Your task to perform on an android device: Open the calendar and show me this week's events? Image 0: 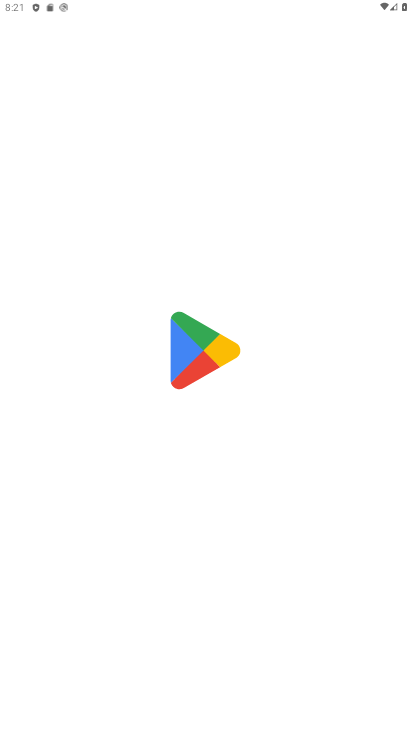
Step 0: press back button
Your task to perform on an android device: Open the calendar and show me this week's events? Image 1: 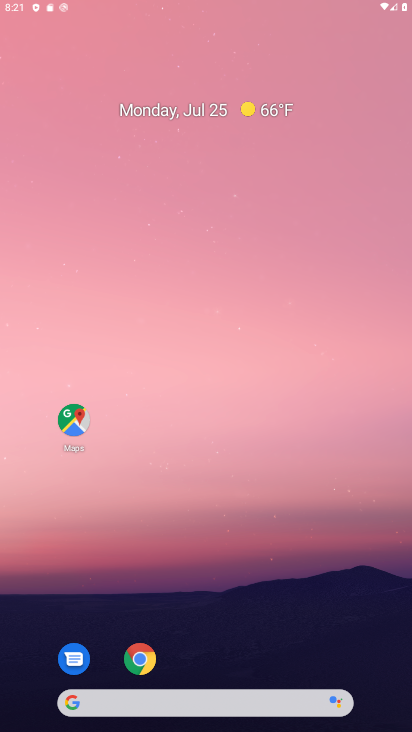
Step 1: press home button
Your task to perform on an android device: Open the calendar and show me this week's events? Image 2: 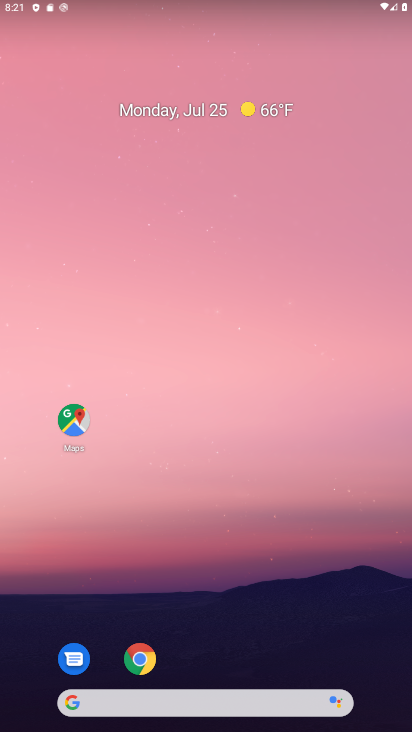
Step 2: press home button
Your task to perform on an android device: Open the calendar and show me this week's events? Image 3: 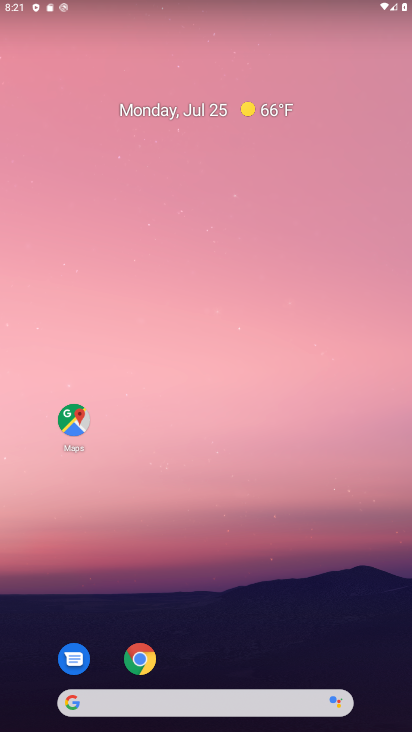
Step 3: drag from (188, 474) to (188, 143)
Your task to perform on an android device: Open the calendar and show me this week's events? Image 4: 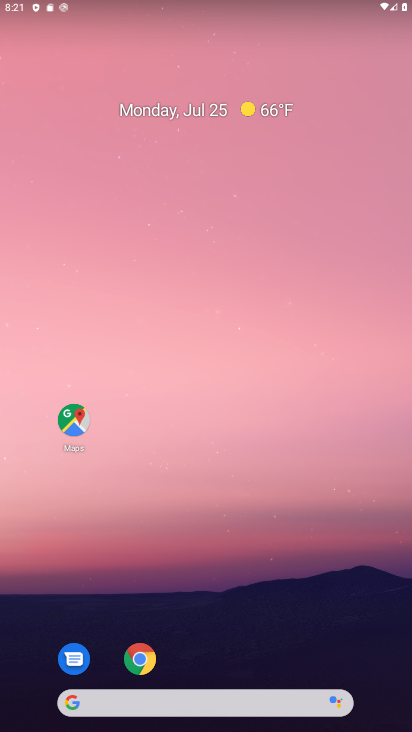
Step 4: drag from (314, 641) to (231, 83)
Your task to perform on an android device: Open the calendar and show me this week's events? Image 5: 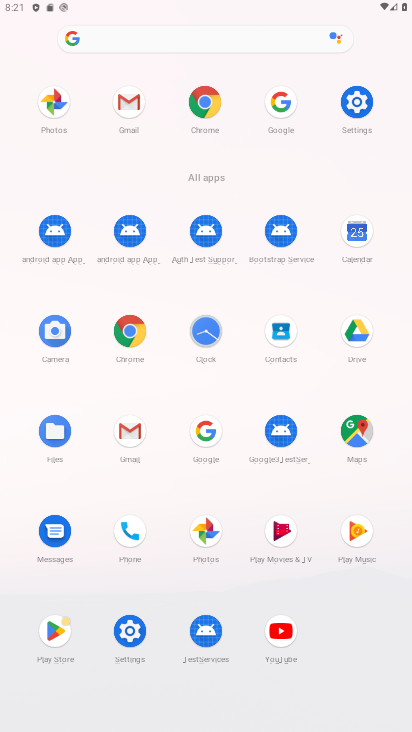
Step 5: click (356, 238)
Your task to perform on an android device: Open the calendar and show me this week's events? Image 6: 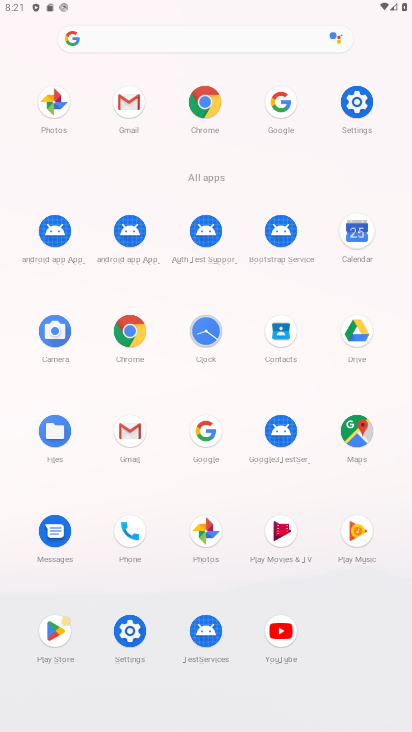
Step 6: click (356, 235)
Your task to perform on an android device: Open the calendar and show me this week's events? Image 7: 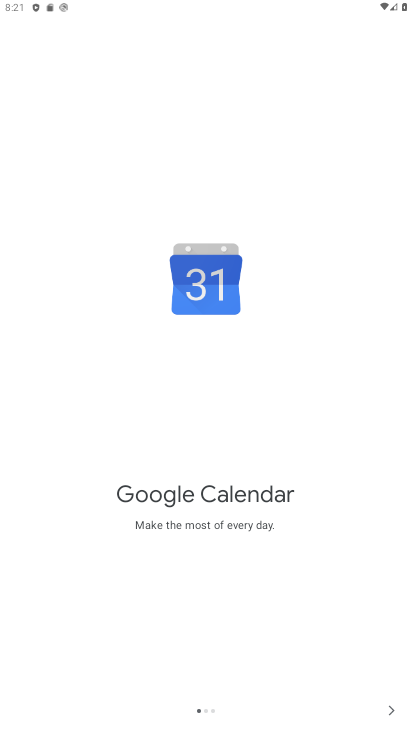
Step 7: click (385, 703)
Your task to perform on an android device: Open the calendar and show me this week's events? Image 8: 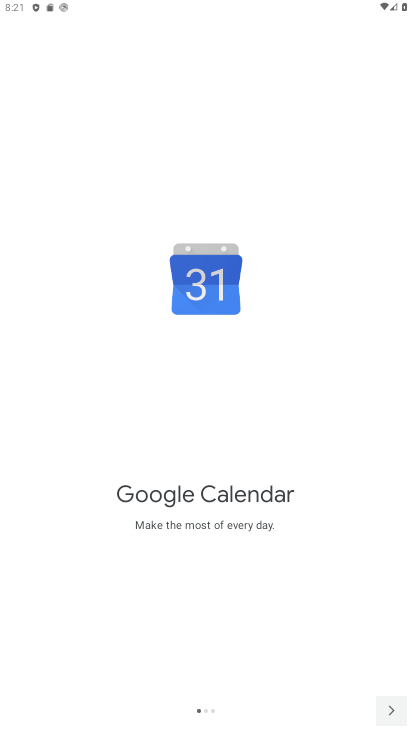
Step 8: click (385, 703)
Your task to perform on an android device: Open the calendar and show me this week's events? Image 9: 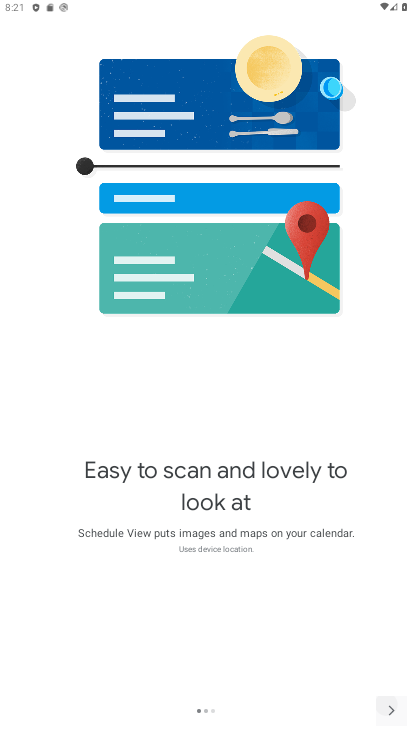
Step 9: click (385, 703)
Your task to perform on an android device: Open the calendar and show me this week's events? Image 10: 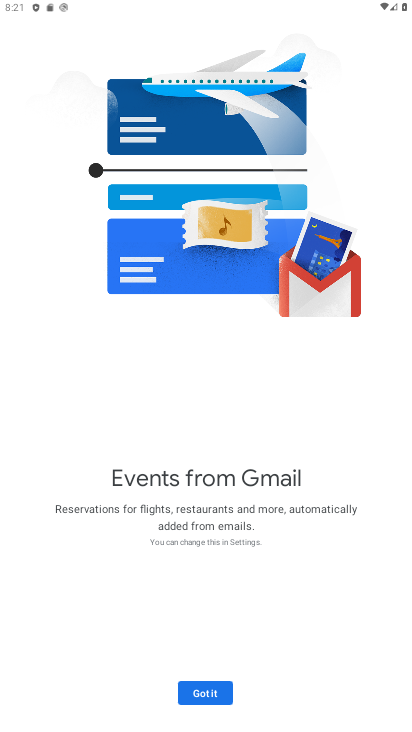
Step 10: click (385, 703)
Your task to perform on an android device: Open the calendar and show me this week's events? Image 11: 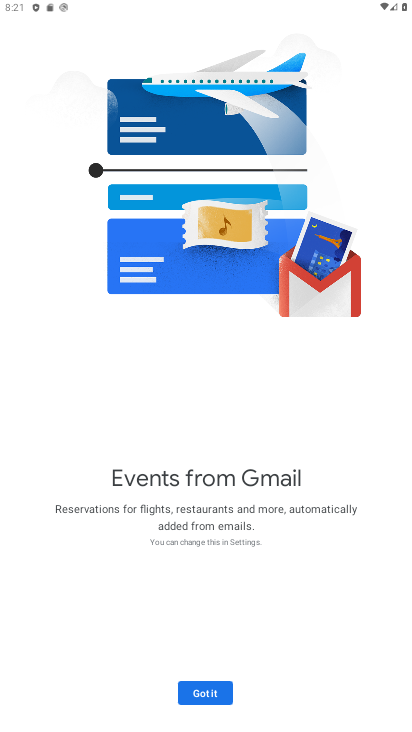
Step 11: click (384, 702)
Your task to perform on an android device: Open the calendar and show me this week's events? Image 12: 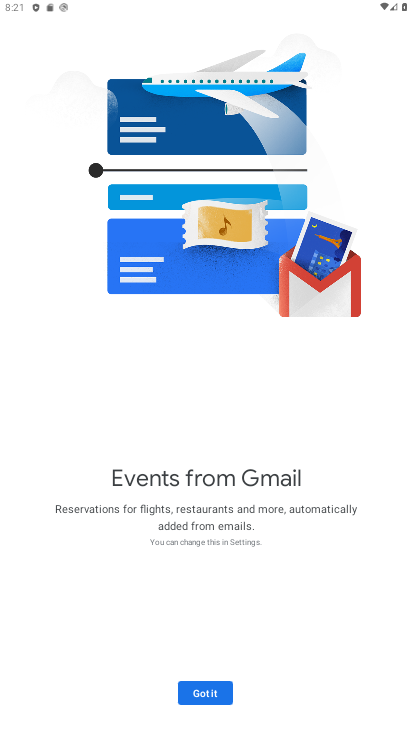
Step 12: click (383, 702)
Your task to perform on an android device: Open the calendar and show me this week's events? Image 13: 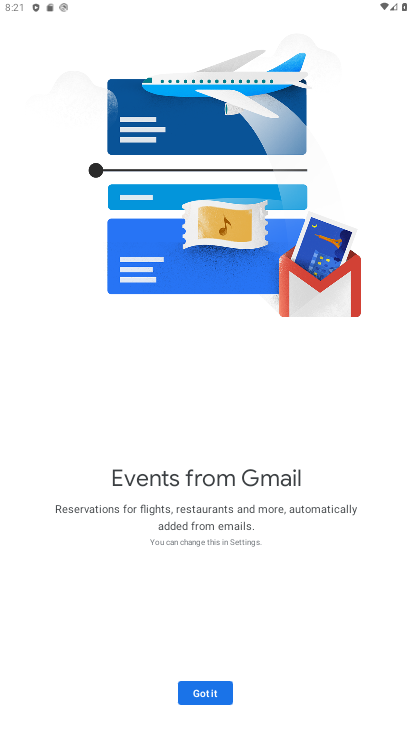
Step 13: click (193, 694)
Your task to perform on an android device: Open the calendar and show me this week's events? Image 14: 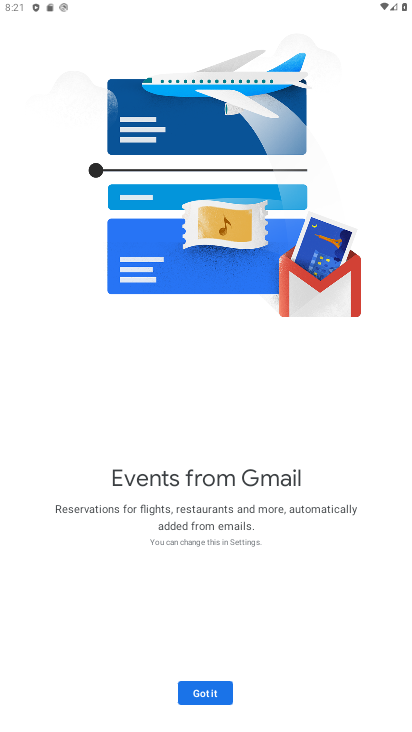
Step 14: click (198, 689)
Your task to perform on an android device: Open the calendar and show me this week's events? Image 15: 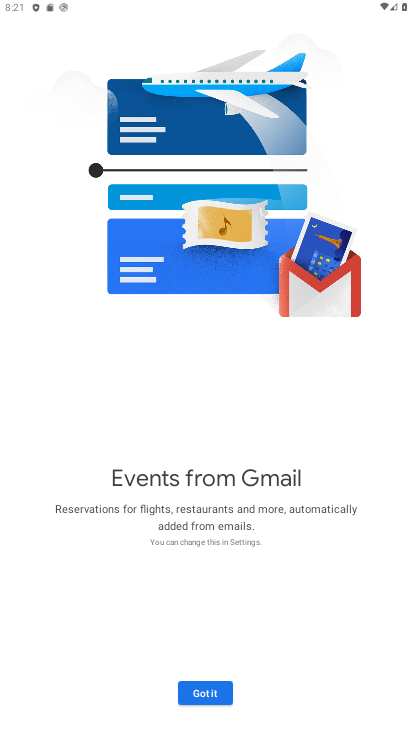
Step 15: click (199, 689)
Your task to perform on an android device: Open the calendar and show me this week's events? Image 16: 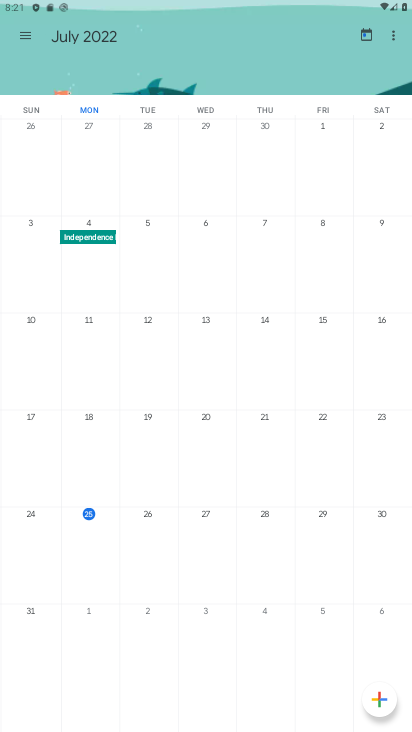
Step 16: click (334, 510)
Your task to perform on an android device: Open the calendar and show me this week's events? Image 17: 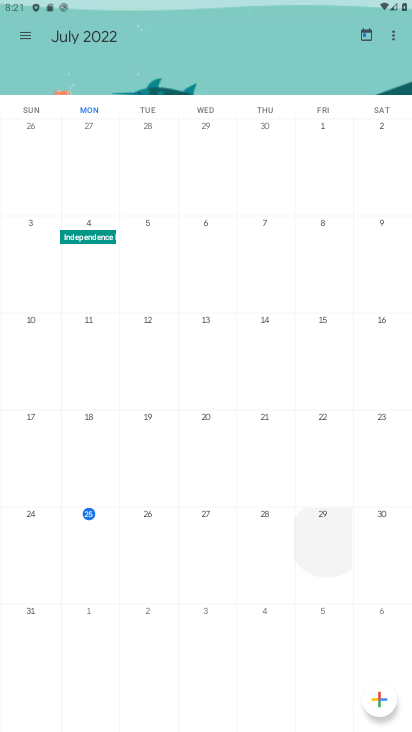
Step 17: click (331, 507)
Your task to perform on an android device: Open the calendar and show me this week's events? Image 18: 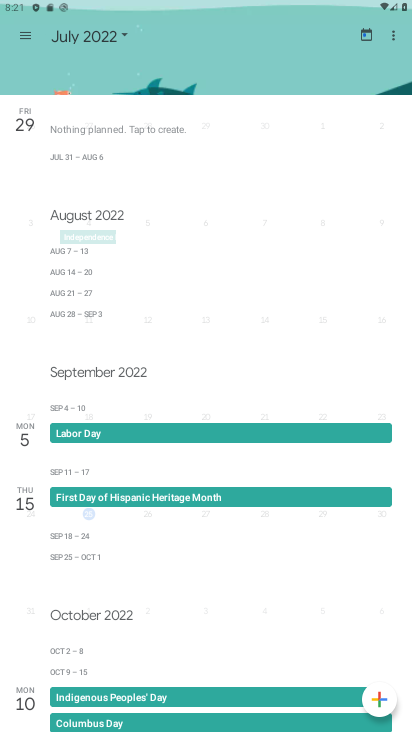
Step 18: click (331, 508)
Your task to perform on an android device: Open the calendar and show me this week's events? Image 19: 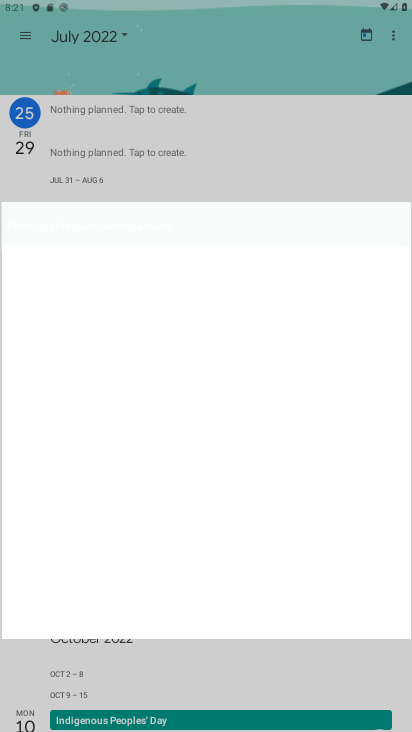
Step 19: click (323, 513)
Your task to perform on an android device: Open the calendar and show me this week's events? Image 20: 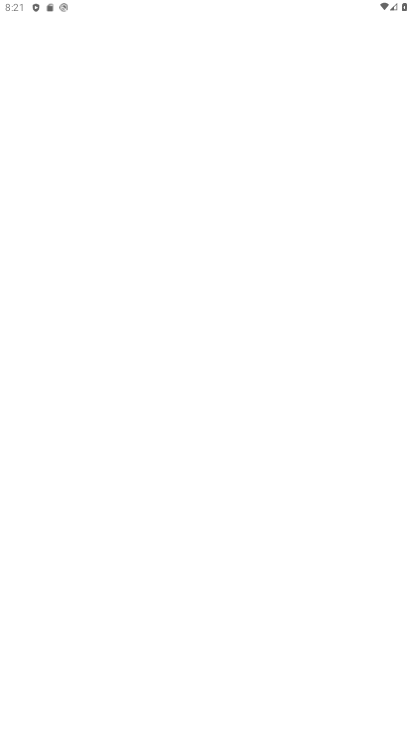
Step 20: click (327, 513)
Your task to perform on an android device: Open the calendar and show me this week's events? Image 21: 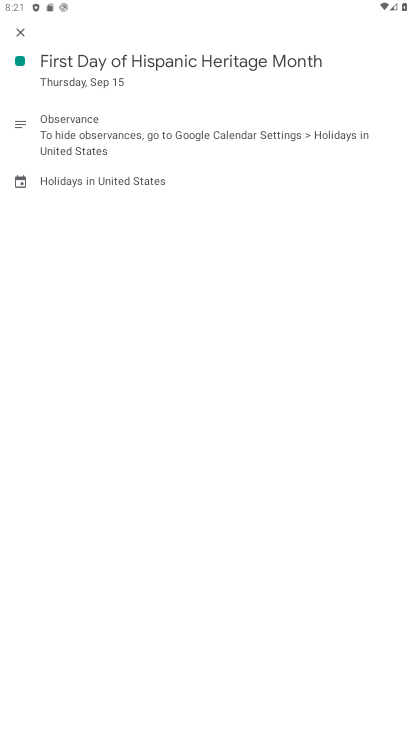
Step 21: task complete